Your task to perform on an android device: Open settings on Google Maps Image 0: 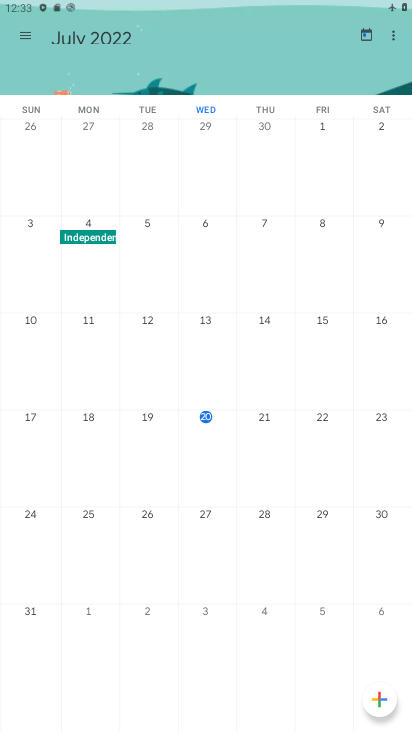
Step 0: press home button
Your task to perform on an android device: Open settings on Google Maps Image 1: 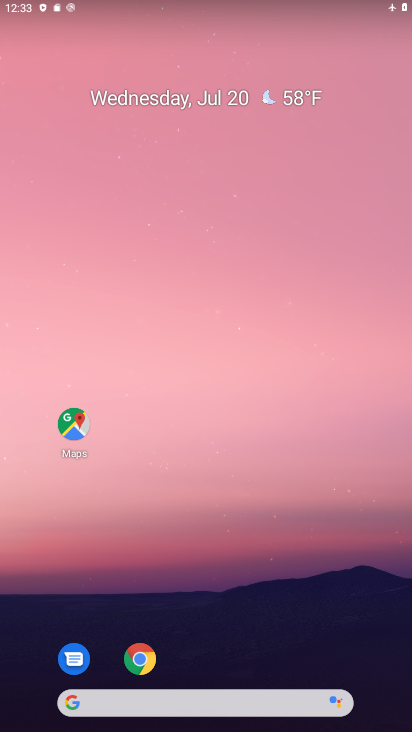
Step 1: click (75, 423)
Your task to perform on an android device: Open settings on Google Maps Image 2: 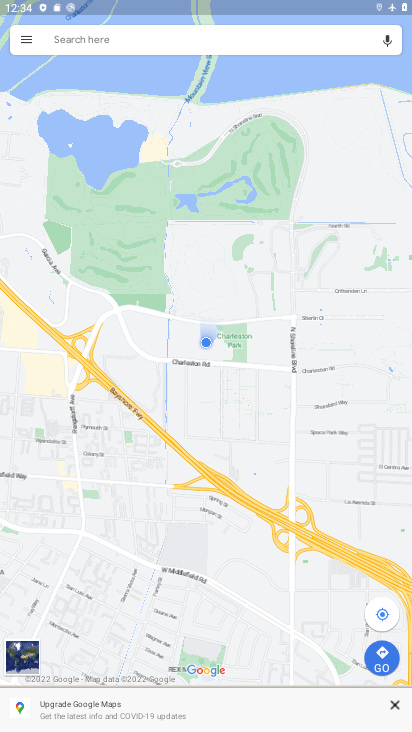
Step 2: click (23, 40)
Your task to perform on an android device: Open settings on Google Maps Image 3: 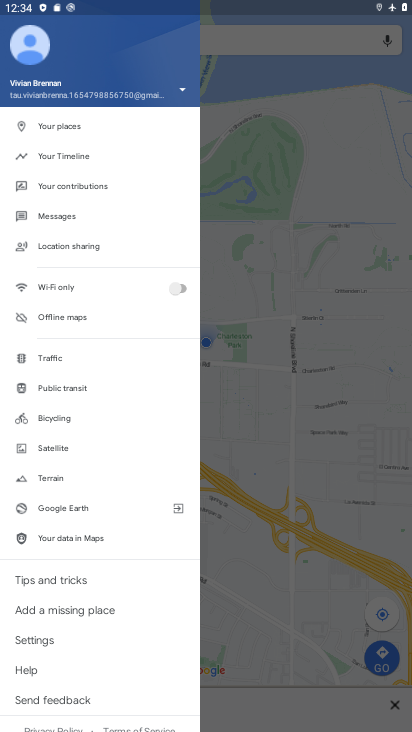
Step 3: click (59, 636)
Your task to perform on an android device: Open settings on Google Maps Image 4: 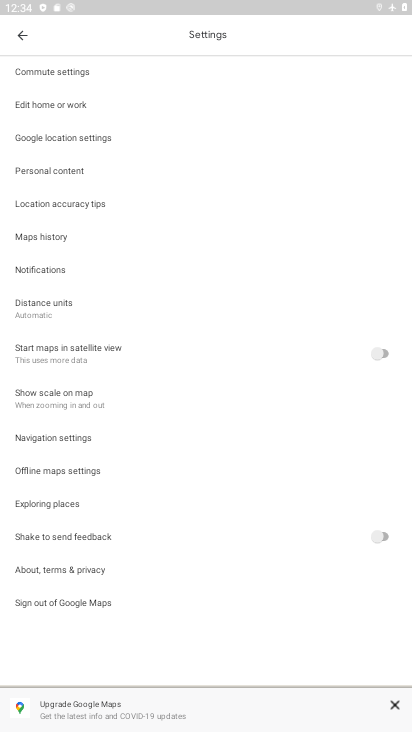
Step 4: task complete